Your task to perform on an android device: Open Amazon Image 0: 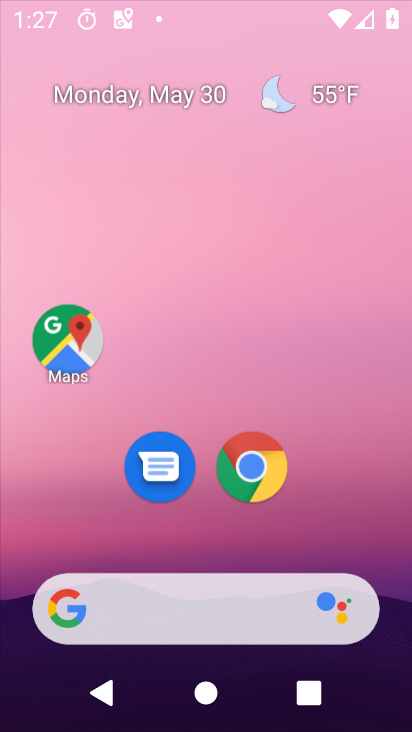
Step 0: click (362, 136)
Your task to perform on an android device: Open Amazon Image 1: 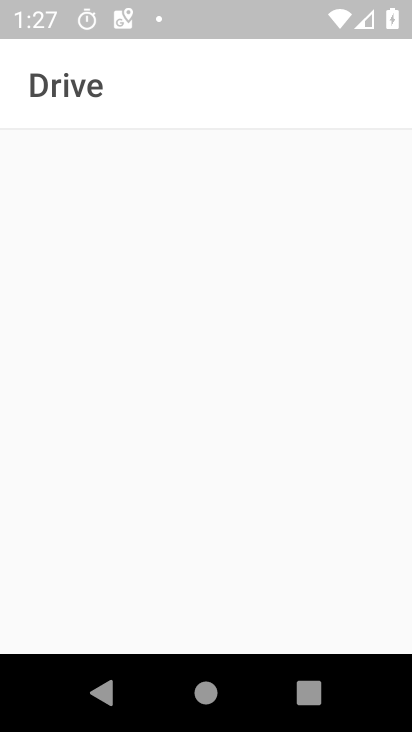
Step 1: press back button
Your task to perform on an android device: Open Amazon Image 2: 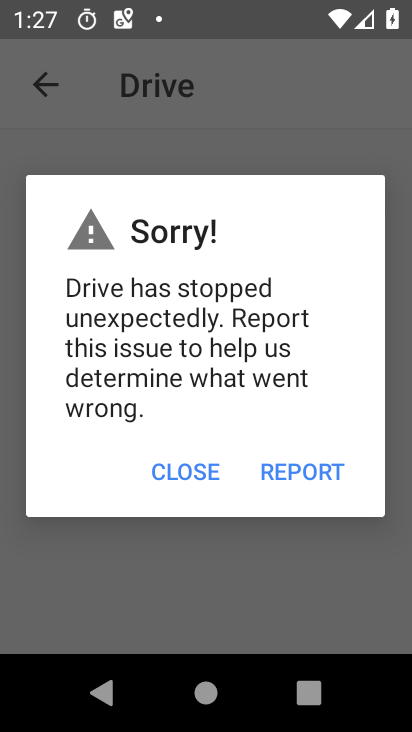
Step 2: press back button
Your task to perform on an android device: Open Amazon Image 3: 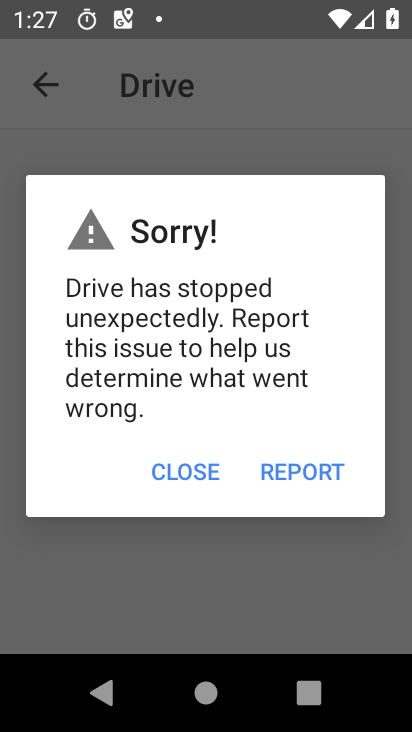
Step 3: click (189, 465)
Your task to perform on an android device: Open Amazon Image 4: 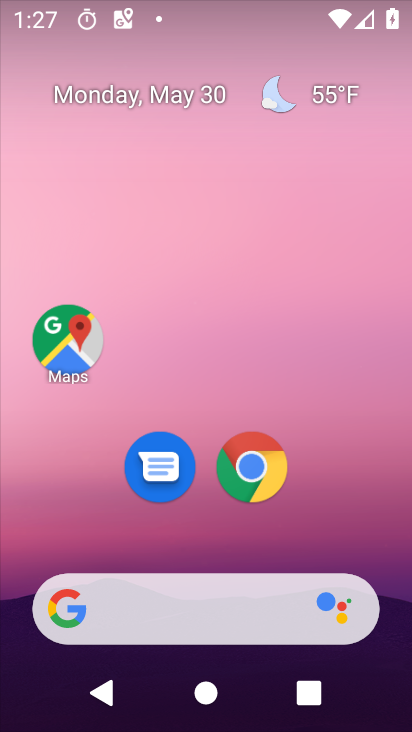
Step 4: click (260, 460)
Your task to perform on an android device: Open Amazon Image 5: 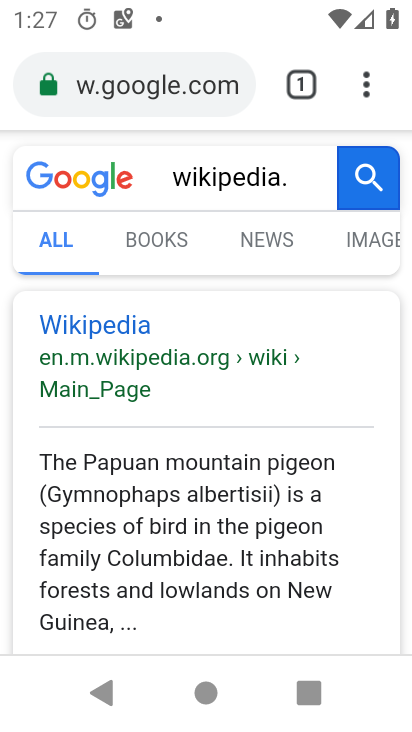
Step 5: click (241, 78)
Your task to perform on an android device: Open Amazon Image 6: 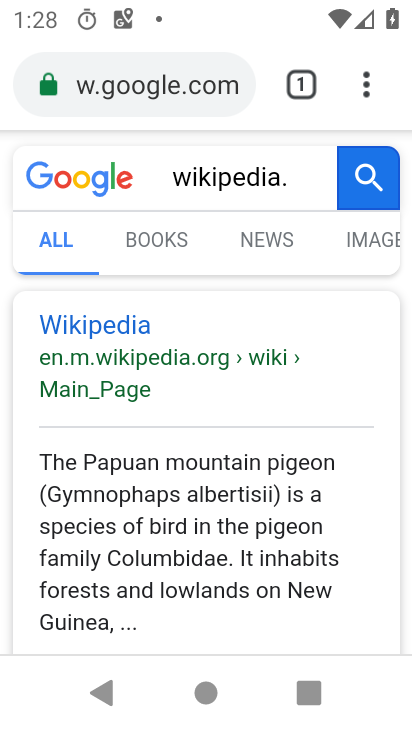
Step 6: click (235, 77)
Your task to perform on an android device: Open Amazon Image 7: 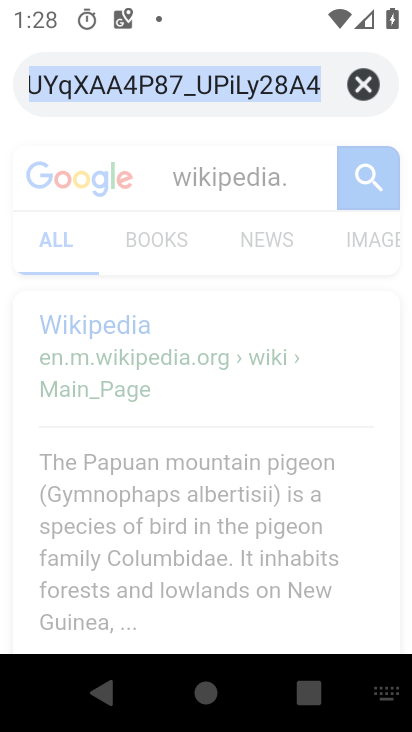
Step 7: click (348, 85)
Your task to perform on an android device: Open Amazon Image 8: 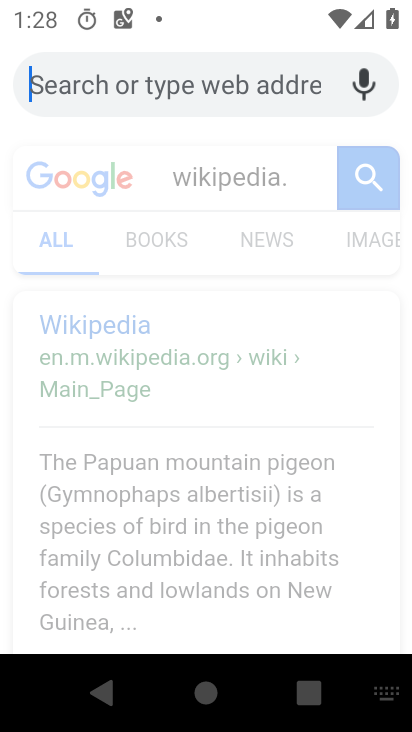
Step 8: type "Amazon"
Your task to perform on an android device: Open Amazon Image 9: 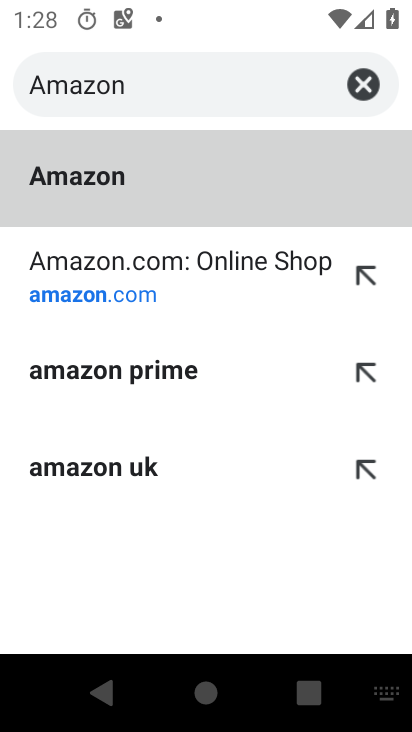
Step 9: click (78, 176)
Your task to perform on an android device: Open Amazon Image 10: 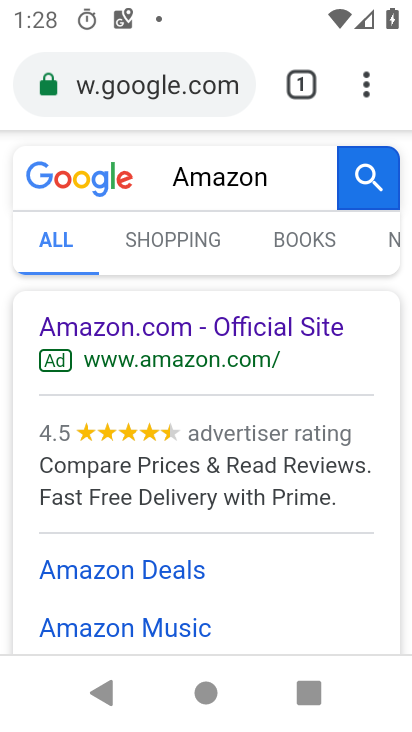
Step 10: task complete